Your task to perform on an android device: turn off improve location accuracy Image 0: 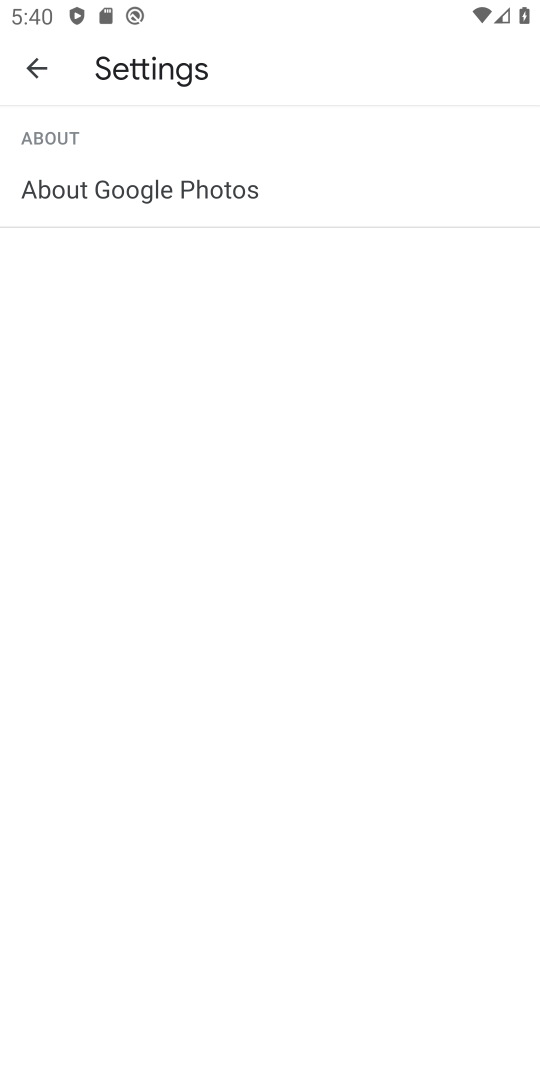
Step 0: press home button
Your task to perform on an android device: turn off improve location accuracy Image 1: 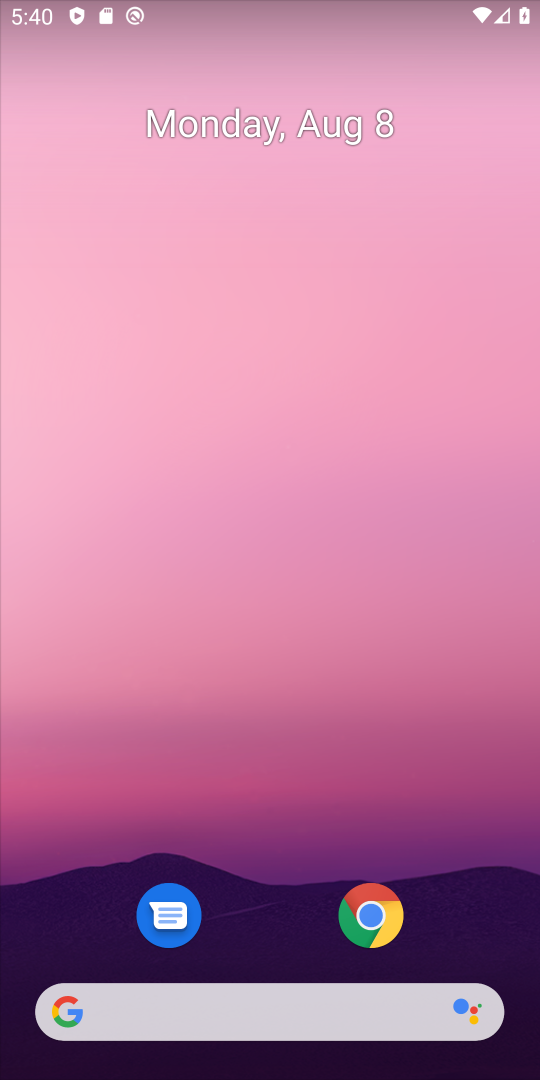
Step 1: drag from (257, 849) to (222, 347)
Your task to perform on an android device: turn off improve location accuracy Image 2: 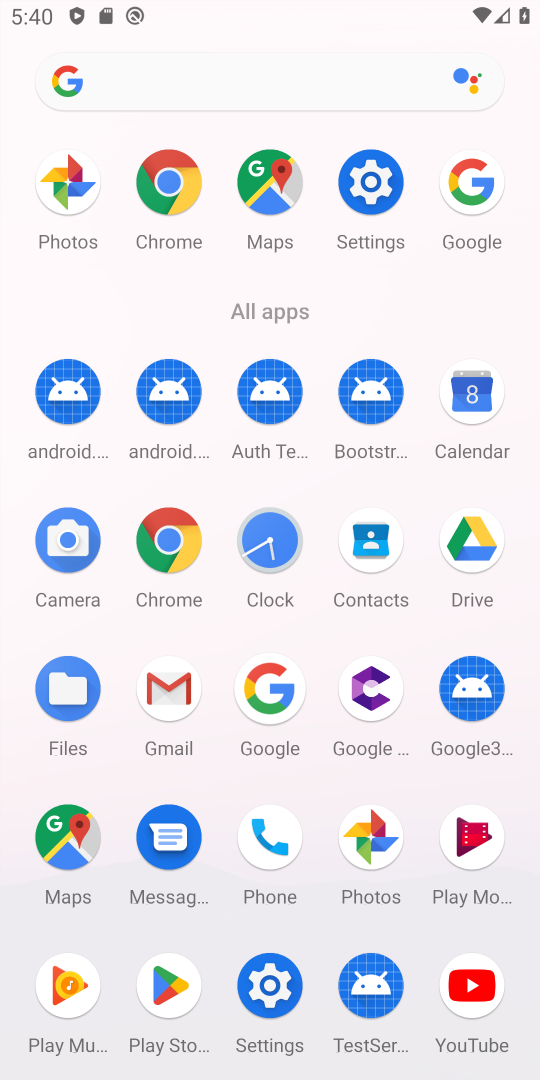
Step 2: click (370, 184)
Your task to perform on an android device: turn off improve location accuracy Image 3: 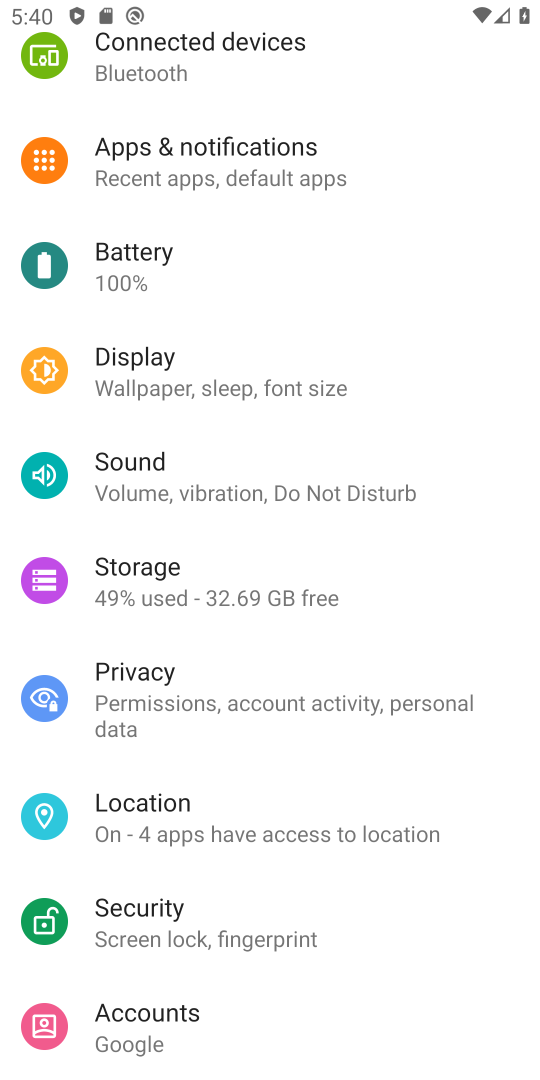
Step 3: click (157, 798)
Your task to perform on an android device: turn off improve location accuracy Image 4: 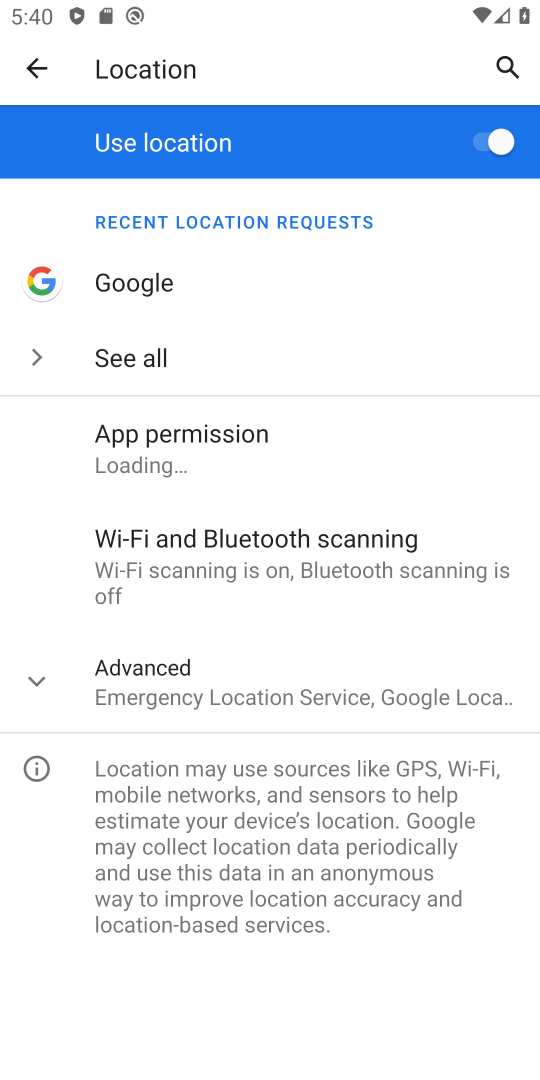
Step 4: click (45, 669)
Your task to perform on an android device: turn off improve location accuracy Image 5: 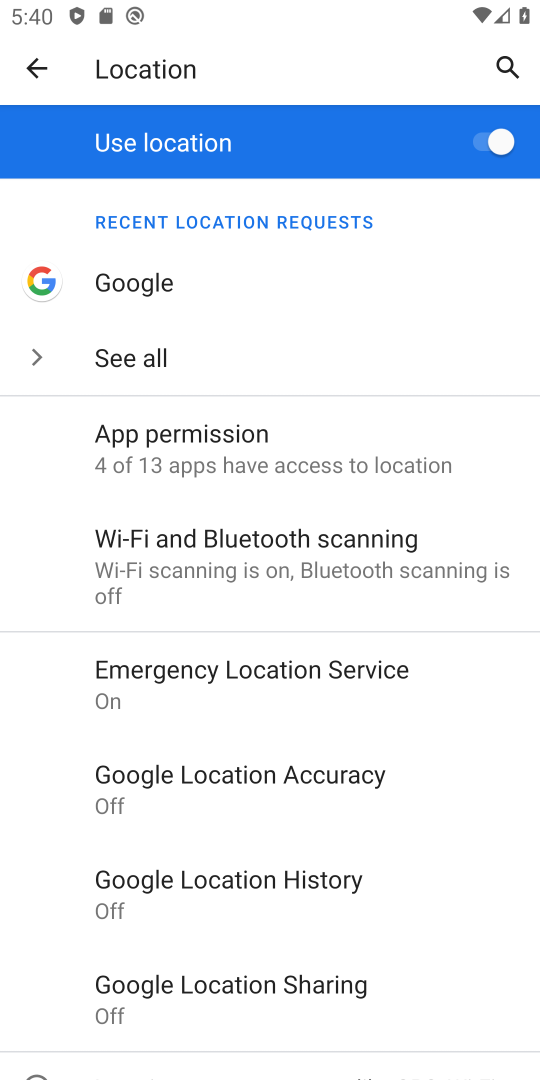
Step 5: click (229, 773)
Your task to perform on an android device: turn off improve location accuracy Image 6: 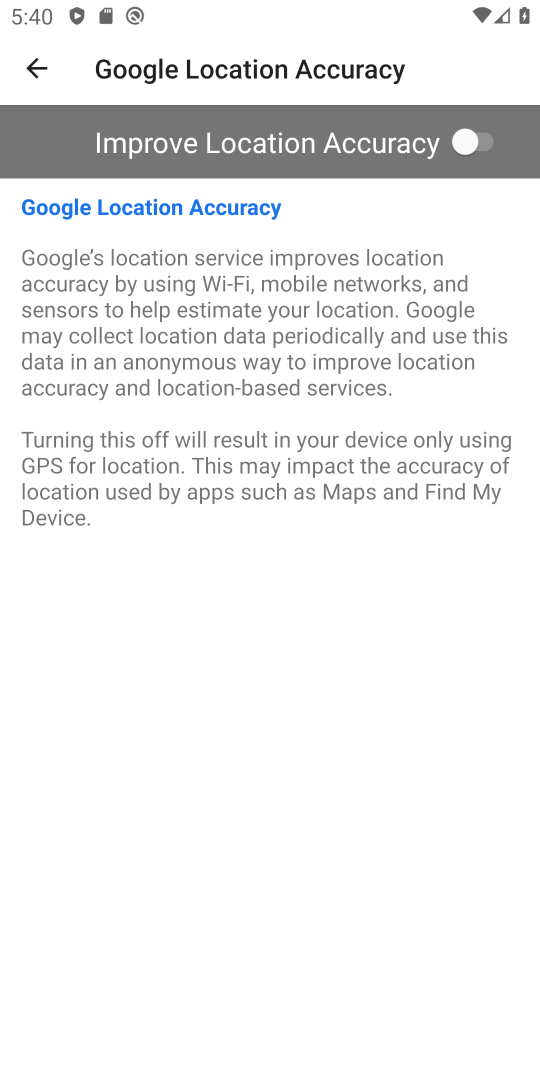
Step 6: task complete